Your task to perform on an android device: Search for logitech g903 on walmart.com, select the first entry, add it to the cart, then select checkout. Image 0: 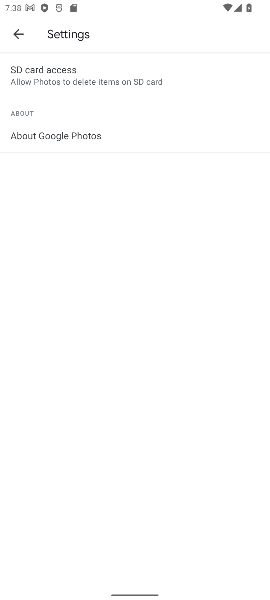
Step 0: press home button
Your task to perform on an android device: Search for logitech g903 on walmart.com, select the first entry, add it to the cart, then select checkout. Image 1: 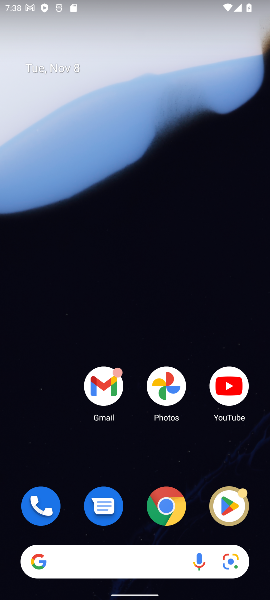
Step 1: drag from (198, 521) to (110, 71)
Your task to perform on an android device: Search for logitech g903 on walmart.com, select the first entry, add it to the cart, then select checkout. Image 2: 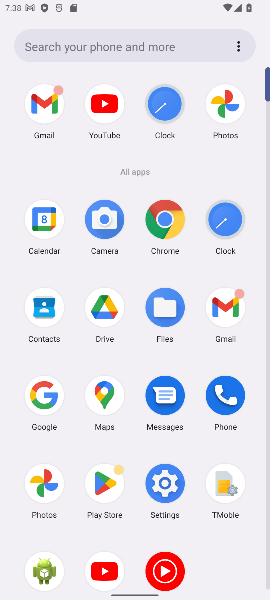
Step 2: click (166, 215)
Your task to perform on an android device: Search for logitech g903 on walmart.com, select the first entry, add it to the cart, then select checkout. Image 3: 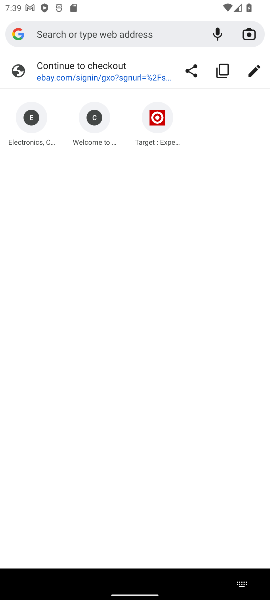
Step 3: type " walmart.com"
Your task to perform on an android device: Search for logitech g903 on walmart.com, select the first entry, add it to the cart, then select checkout. Image 4: 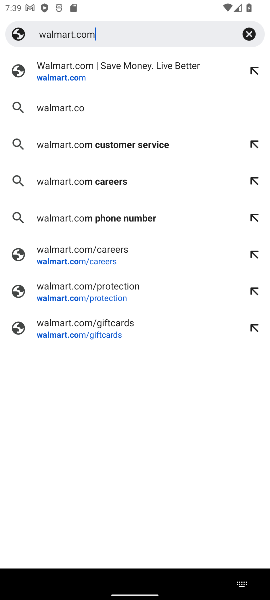
Step 4: press enter
Your task to perform on an android device: Search for logitech g903 on walmart.com, select the first entry, add it to the cart, then select checkout. Image 5: 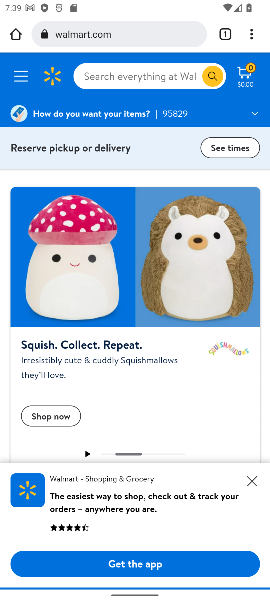
Step 5: click (102, 76)
Your task to perform on an android device: Search for logitech g903 on walmart.com, select the first entry, add it to the cart, then select checkout. Image 6: 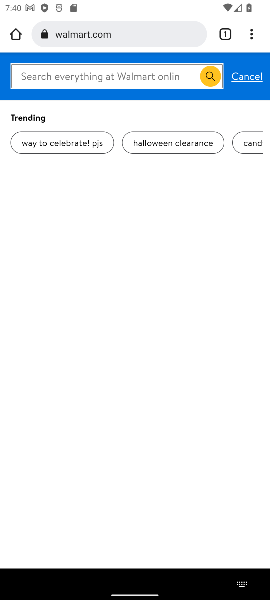
Step 6: type "g903 "
Your task to perform on an android device: Search for logitech g903 on walmart.com, select the first entry, add it to the cart, then select checkout. Image 7: 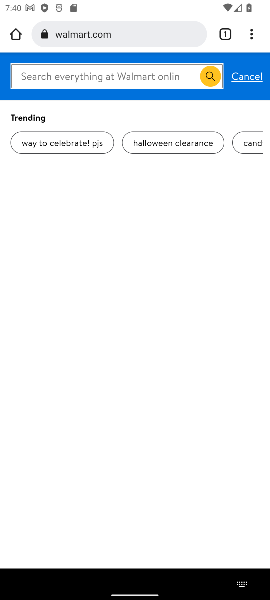
Step 7: press enter
Your task to perform on an android device: Search for logitech g903 on walmart.com, select the first entry, add it to the cart, then select checkout. Image 8: 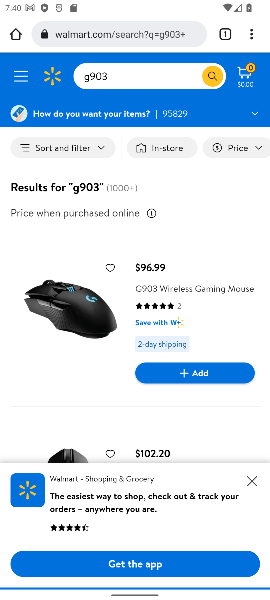
Step 8: click (194, 376)
Your task to perform on an android device: Search for logitech g903 on walmart.com, select the first entry, add it to the cart, then select checkout. Image 9: 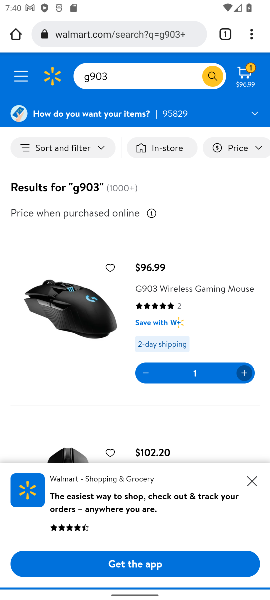
Step 9: click (248, 68)
Your task to perform on an android device: Search for logitech g903 on walmart.com, select the first entry, add it to the cart, then select checkout. Image 10: 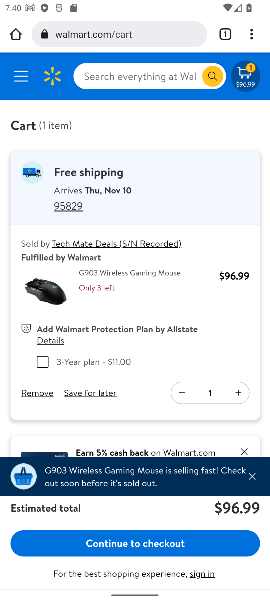
Step 10: task complete